Your task to perform on an android device: Search for Mexican restaurants on Maps Image 0: 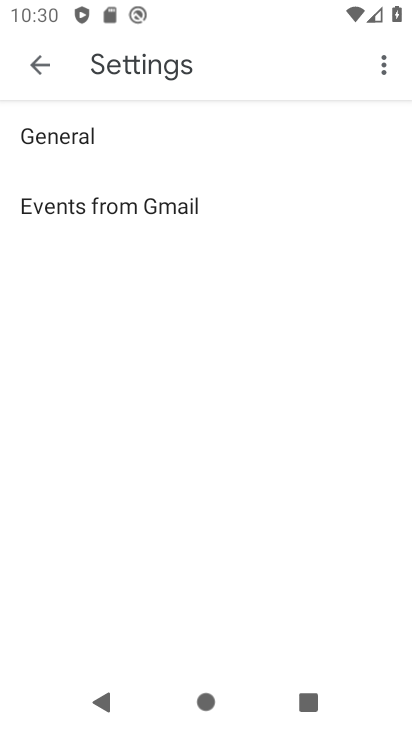
Step 0: press home button
Your task to perform on an android device: Search for Mexican restaurants on Maps Image 1: 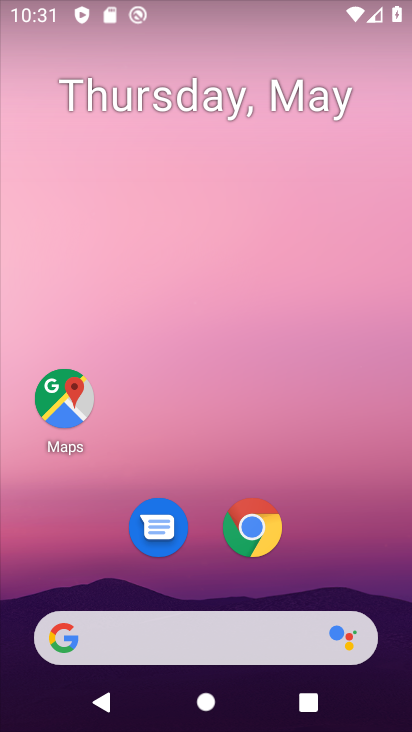
Step 1: click (64, 400)
Your task to perform on an android device: Search for Mexican restaurants on Maps Image 2: 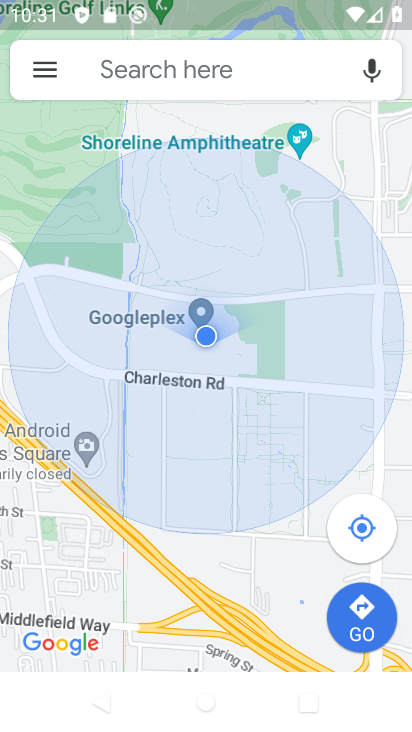
Step 2: click (259, 60)
Your task to perform on an android device: Search for Mexican restaurants on Maps Image 3: 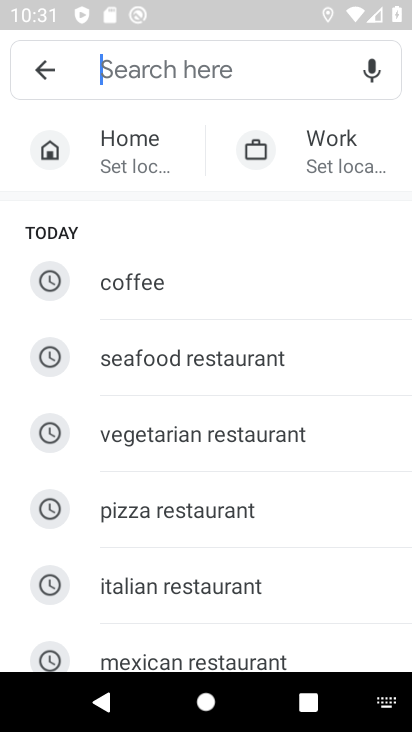
Step 3: type "Mexican restaurants"
Your task to perform on an android device: Search for Mexican restaurants on Maps Image 4: 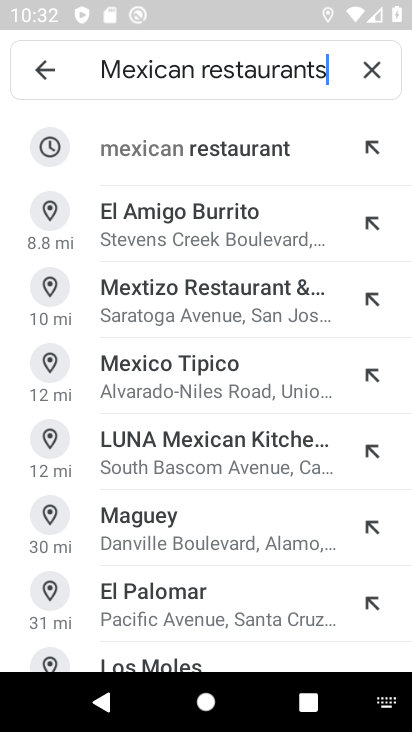
Step 4: press enter
Your task to perform on an android device: Search for Mexican restaurants on Maps Image 5: 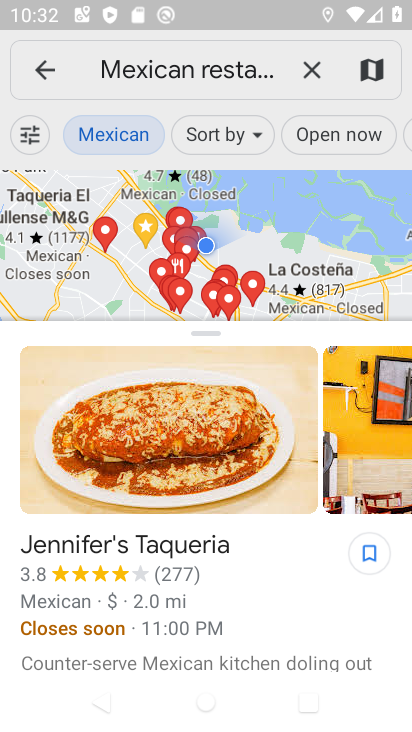
Step 5: task complete